Your task to perform on an android device: change the clock style Image 0: 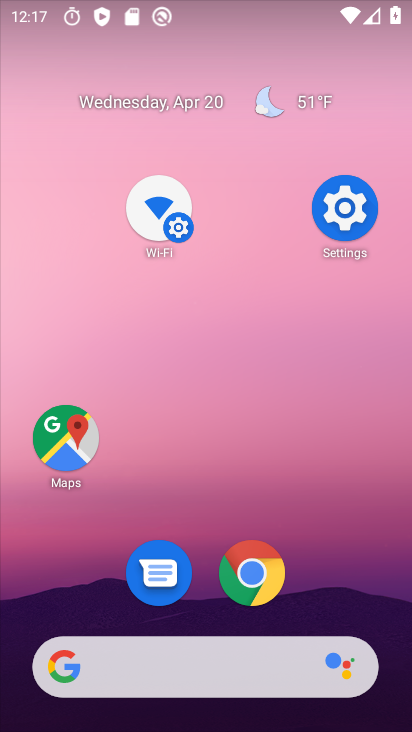
Step 0: press home button
Your task to perform on an android device: change the clock style Image 1: 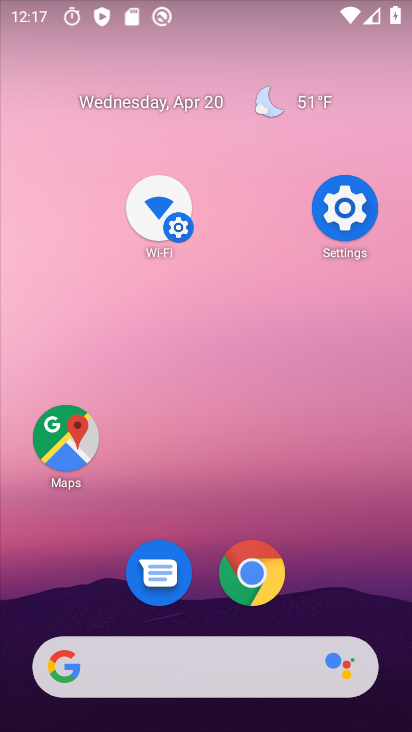
Step 1: drag from (324, 615) to (322, 191)
Your task to perform on an android device: change the clock style Image 2: 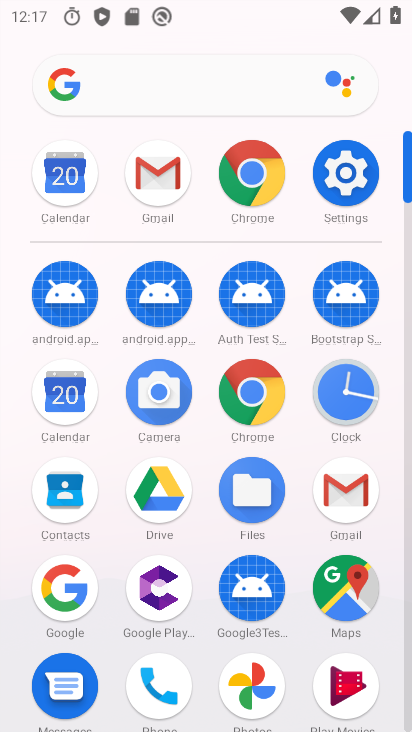
Step 2: click (351, 405)
Your task to perform on an android device: change the clock style Image 3: 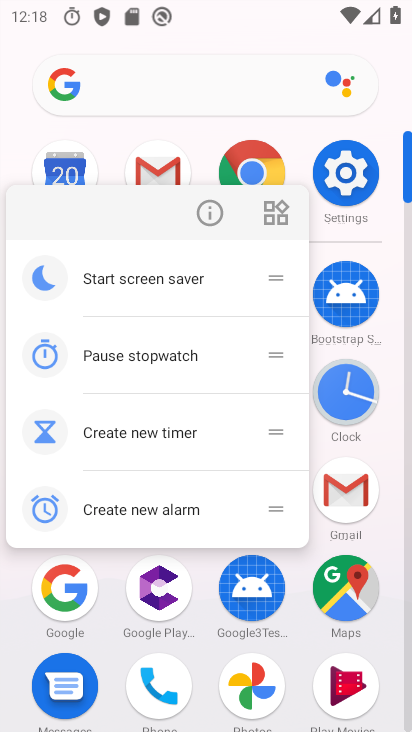
Step 3: click (357, 403)
Your task to perform on an android device: change the clock style Image 4: 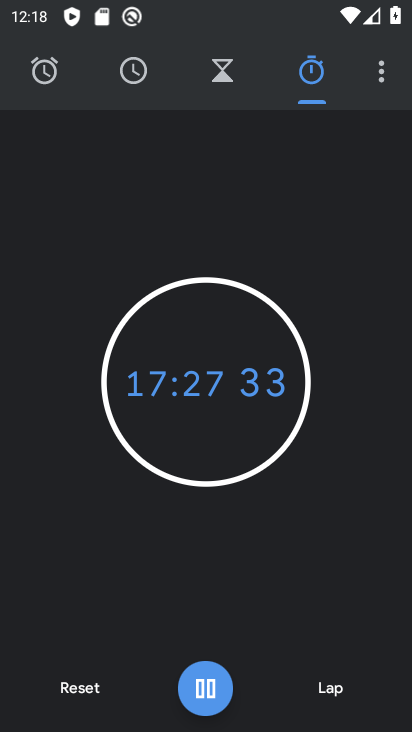
Step 4: click (380, 75)
Your task to perform on an android device: change the clock style Image 5: 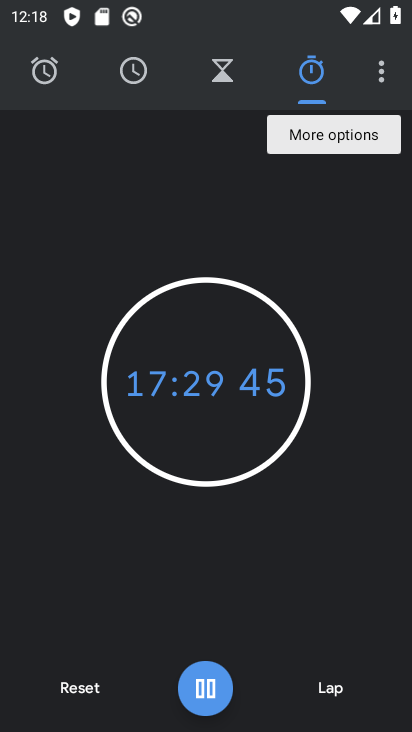
Step 5: click (380, 75)
Your task to perform on an android device: change the clock style Image 6: 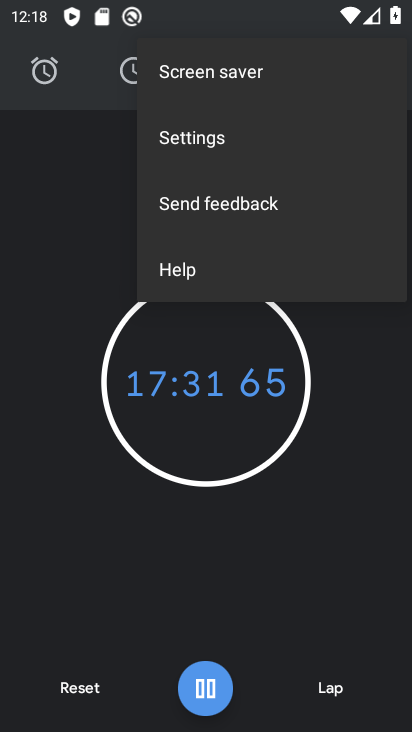
Step 6: click (207, 149)
Your task to perform on an android device: change the clock style Image 7: 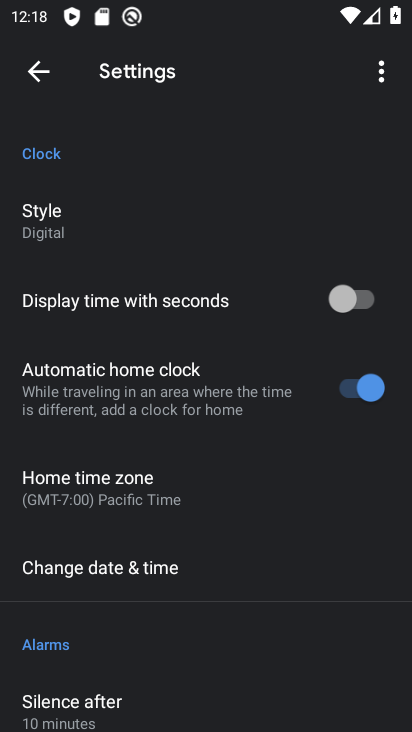
Step 7: click (90, 225)
Your task to perform on an android device: change the clock style Image 8: 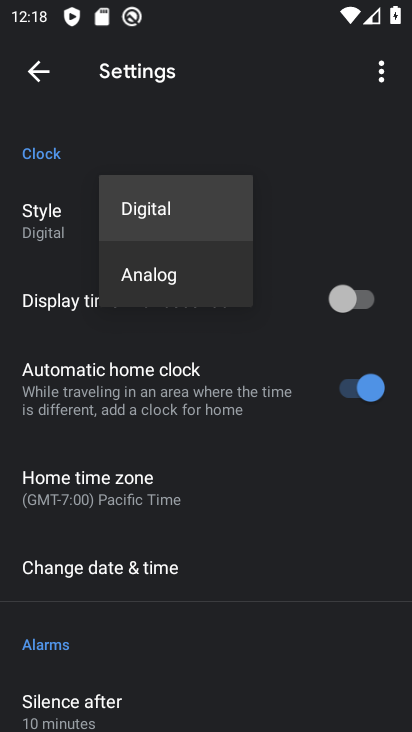
Step 8: click (172, 277)
Your task to perform on an android device: change the clock style Image 9: 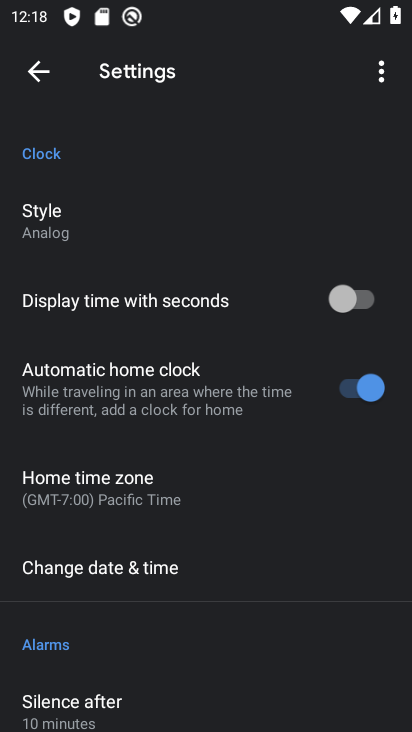
Step 9: task complete